Your task to perform on an android device: Open Maps and search for coffee Image 0: 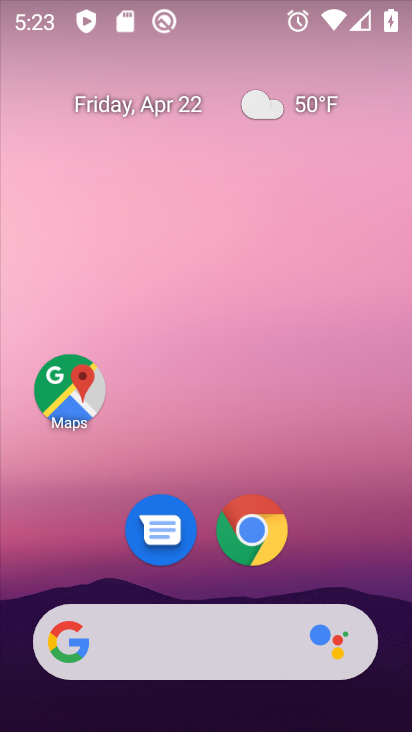
Step 0: drag from (361, 525) to (402, 37)
Your task to perform on an android device: Open Maps and search for coffee Image 1: 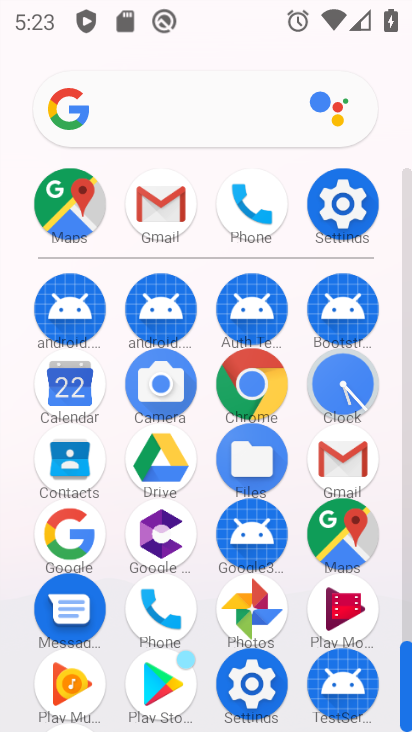
Step 1: click (347, 533)
Your task to perform on an android device: Open Maps and search for coffee Image 2: 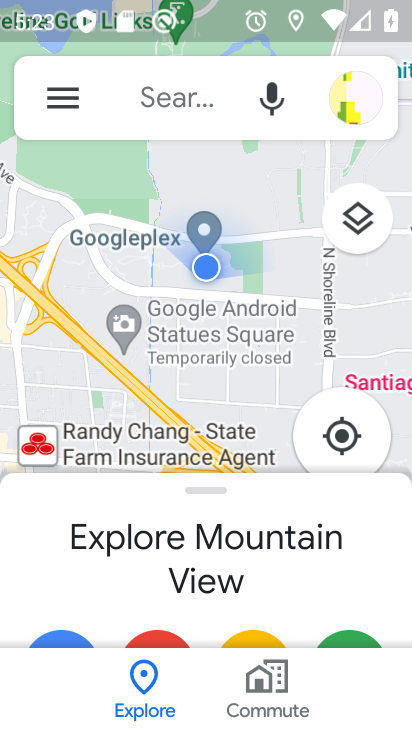
Step 2: click (176, 106)
Your task to perform on an android device: Open Maps and search for coffee Image 3: 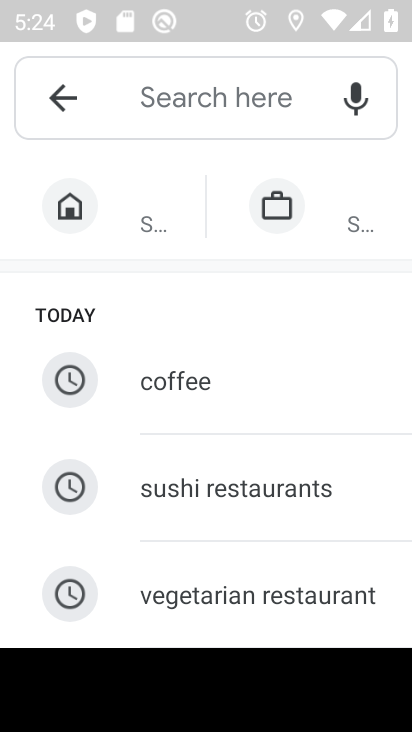
Step 3: type "coffee"
Your task to perform on an android device: Open Maps and search for coffee Image 4: 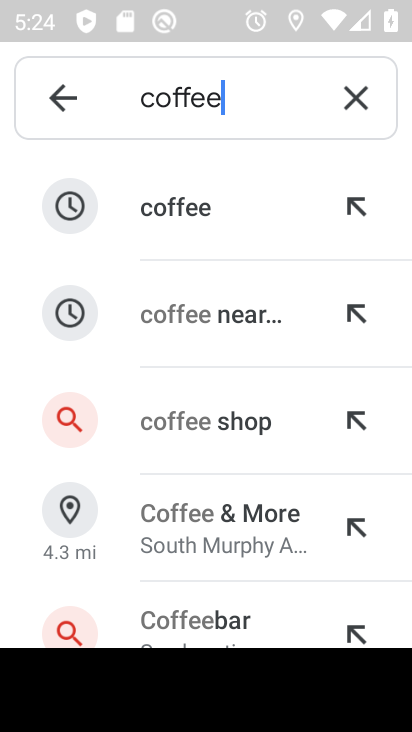
Step 4: click (197, 209)
Your task to perform on an android device: Open Maps and search for coffee Image 5: 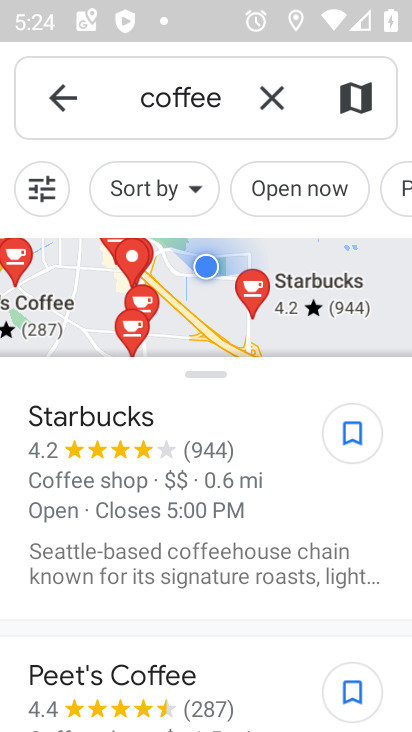
Step 5: task complete